Your task to perform on an android device: turn on notifications settings in the gmail app Image 0: 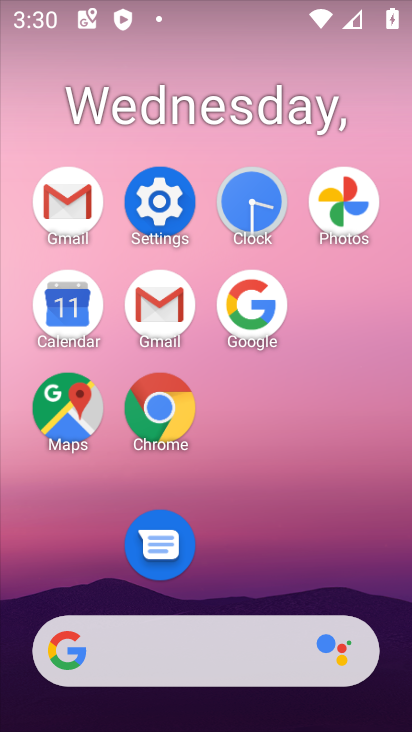
Step 0: click (153, 319)
Your task to perform on an android device: turn on notifications settings in the gmail app Image 1: 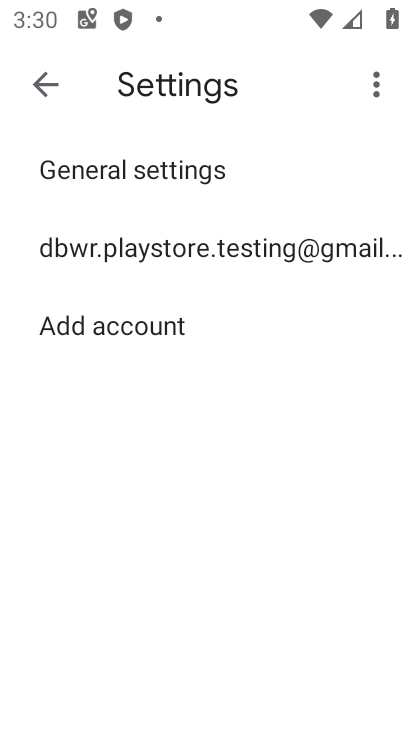
Step 1: click (134, 239)
Your task to perform on an android device: turn on notifications settings in the gmail app Image 2: 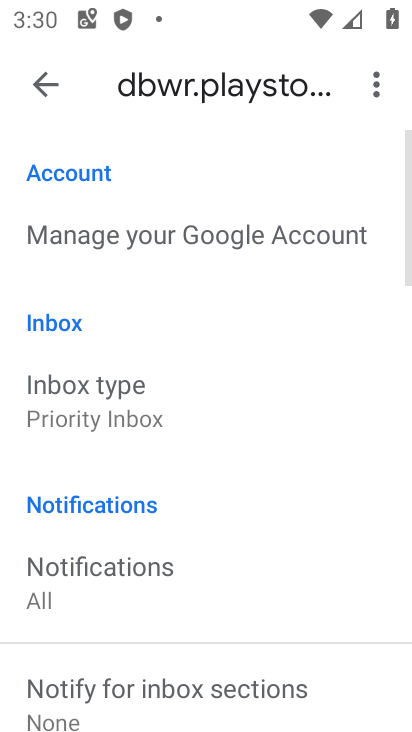
Step 2: click (236, 577)
Your task to perform on an android device: turn on notifications settings in the gmail app Image 3: 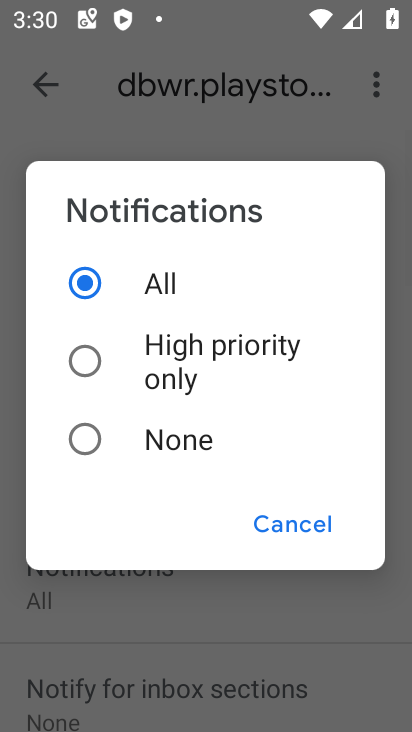
Step 3: task complete